Your task to perform on an android device: Turn on the flashlight Image 0: 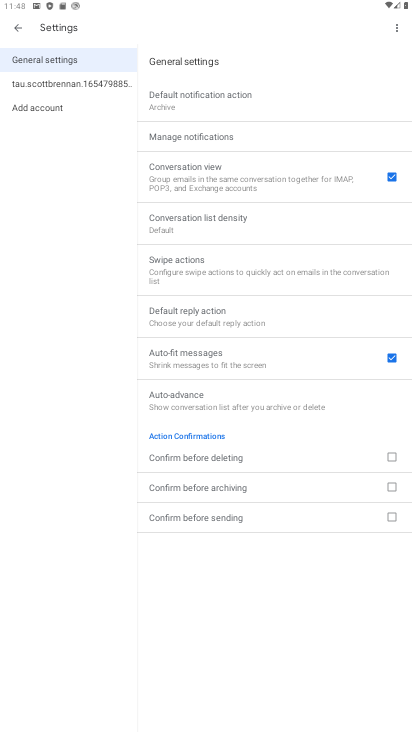
Step 0: press home button
Your task to perform on an android device: Turn on the flashlight Image 1: 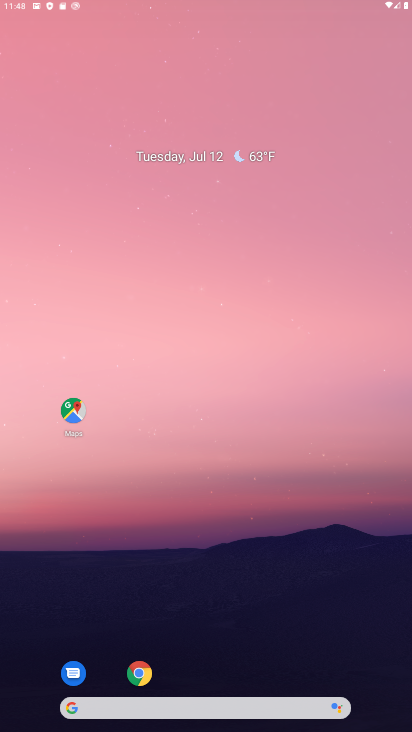
Step 1: task complete